Your task to perform on an android device: manage bookmarks in the chrome app Image 0: 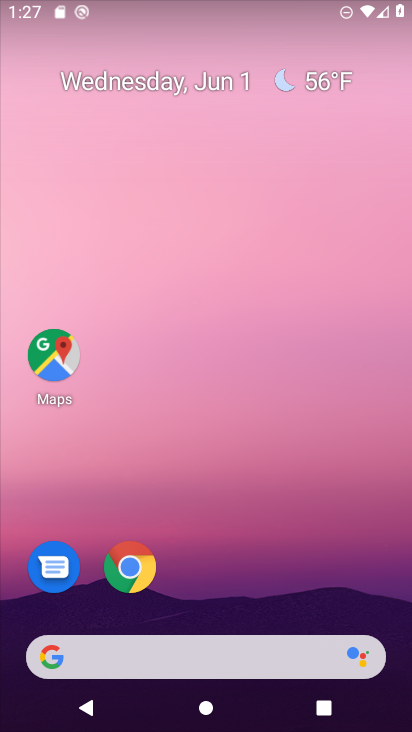
Step 0: click (137, 586)
Your task to perform on an android device: manage bookmarks in the chrome app Image 1: 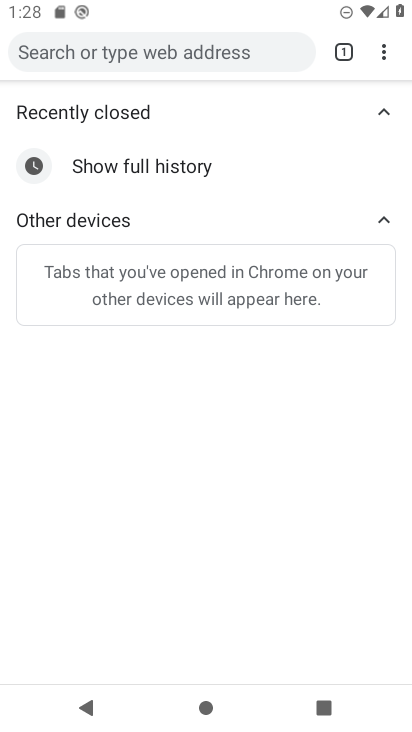
Step 1: task complete